Your task to perform on an android device: Open location settings Image 0: 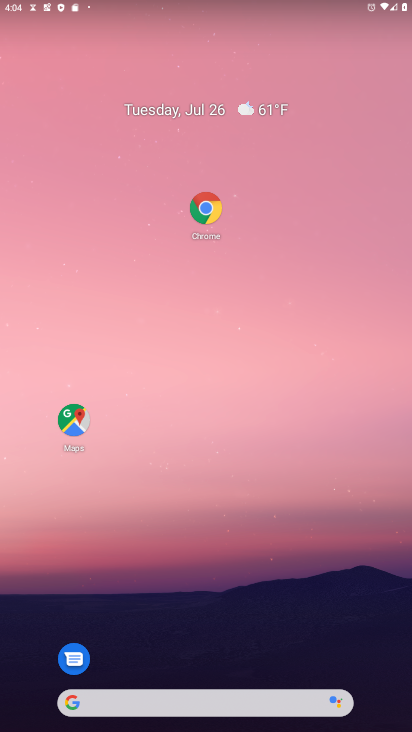
Step 0: drag from (162, 555) to (231, 42)
Your task to perform on an android device: Open location settings Image 1: 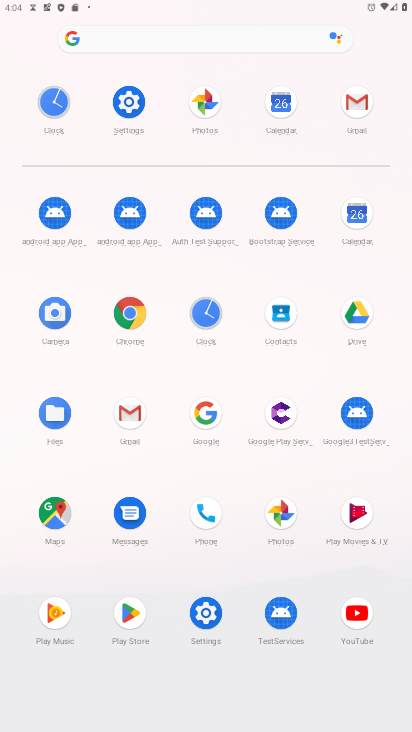
Step 1: click (199, 314)
Your task to perform on an android device: Open location settings Image 2: 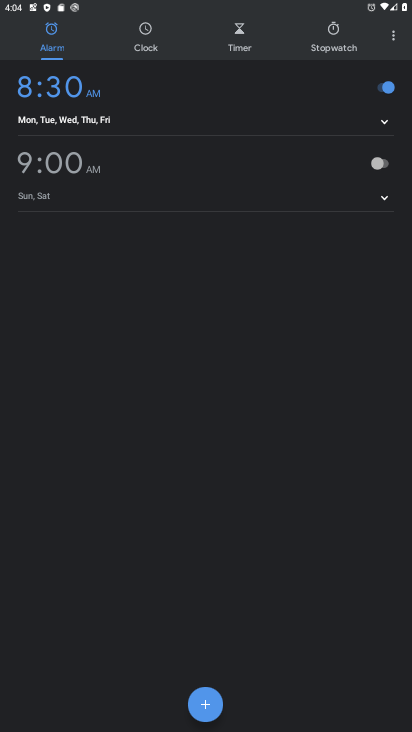
Step 2: press back button
Your task to perform on an android device: Open location settings Image 3: 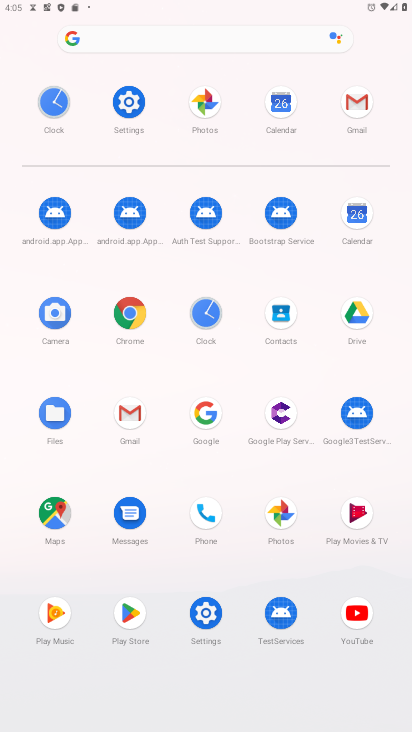
Step 3: click (208, 607)
Your task to perform on an android device: Open location settings Image 4: 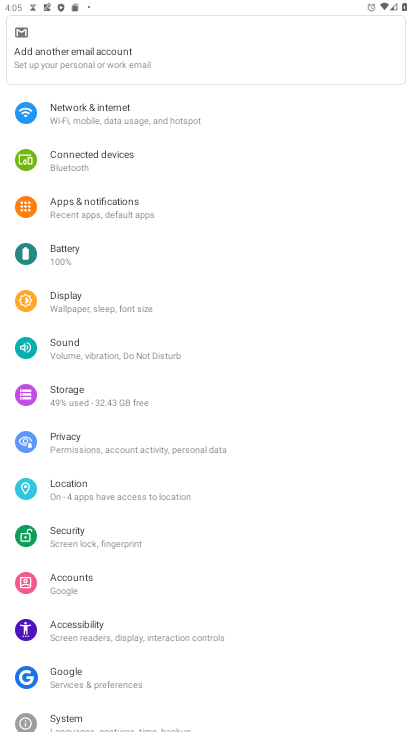
Step 4: click (136, 503)
Your task to perform on an android device: Open location settings Image 5: 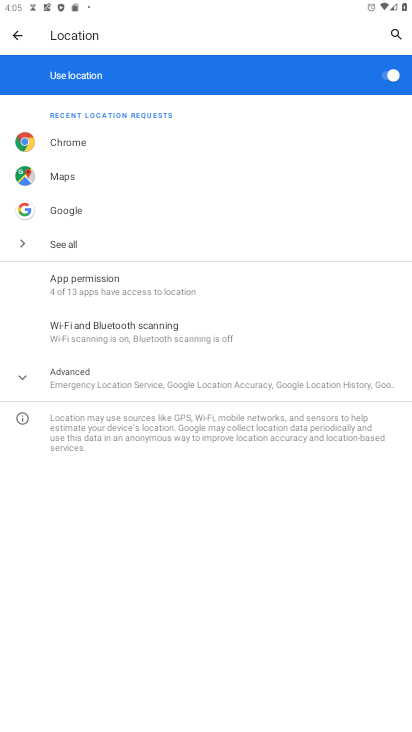
Step 5: click (59, 380)
Your task to perform on an android device: Open location settings Image 6: 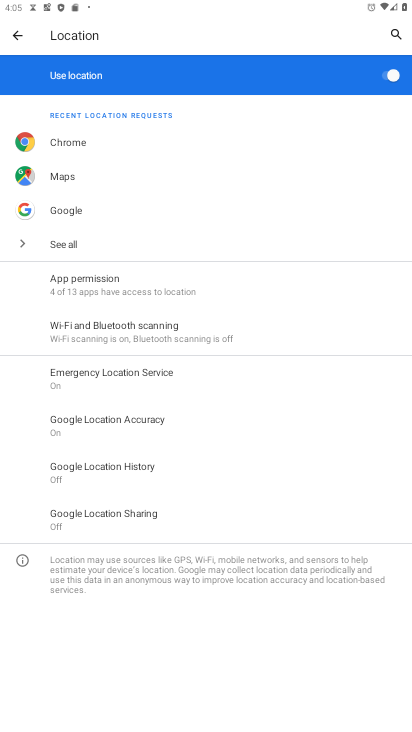
Step 6: task complete